Your task to perform on an android device: uninstall "Google Pay: Save, Pay, Manage" Image 0: 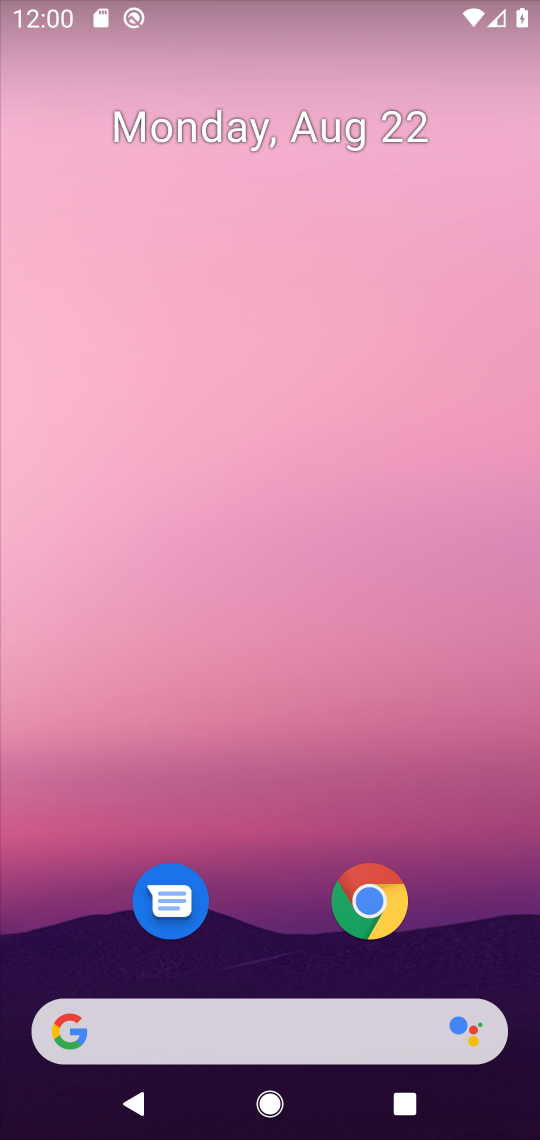
Step 0: drag from (308, 989) to (494, 211)
Your task to perform on an android device: uninstall "Google Pay: Save, Pay, Manage" Image 1: 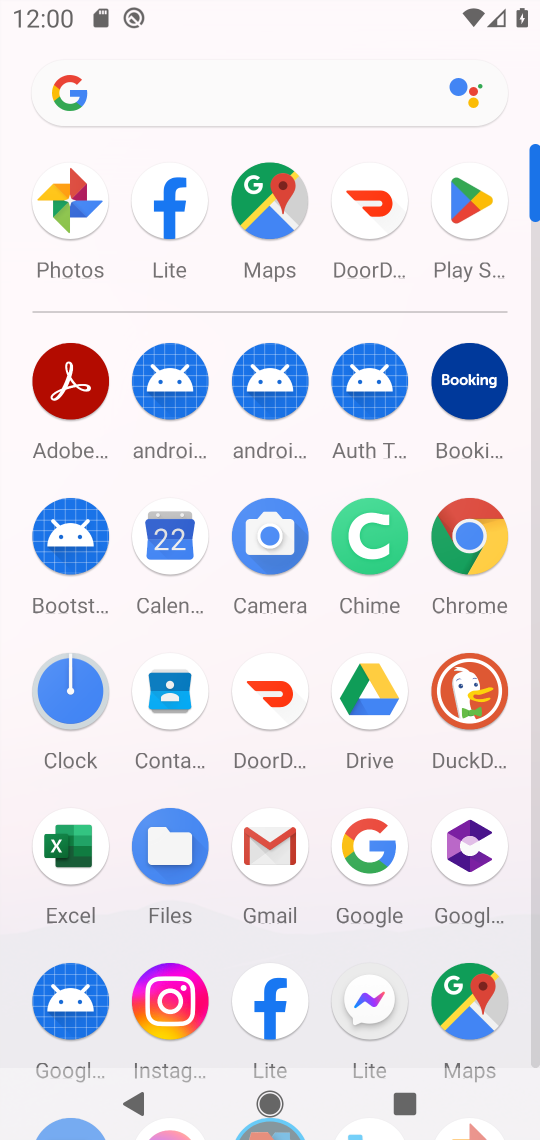
Step 1: click (438, 199)
Your task to perform on an android device: uninstall "Google Pay: Save, Pay, Manage" Image 2: 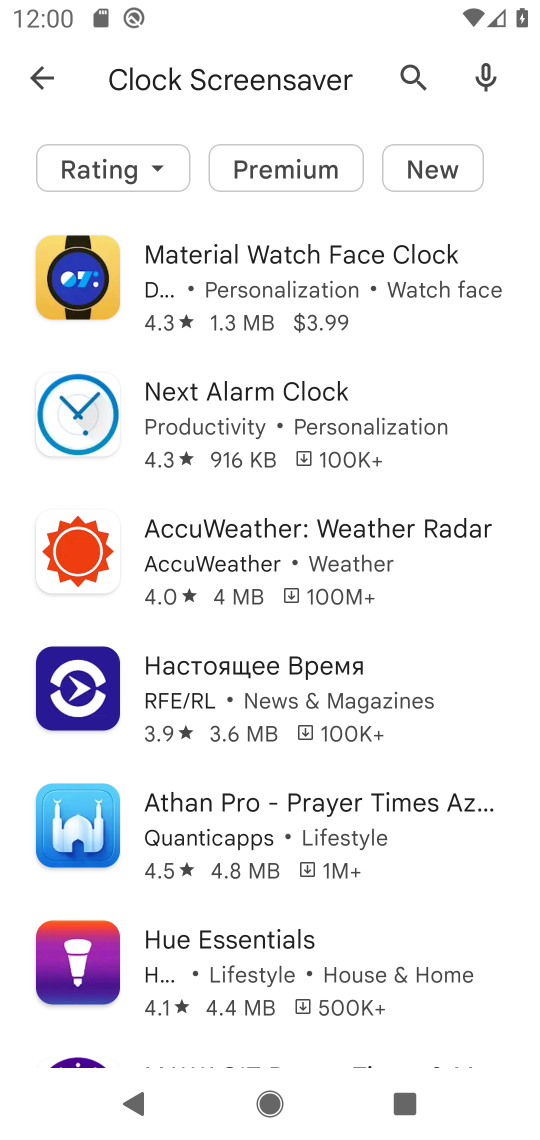
Step 2: click (374, 82)
Your task to perform on an android device: uninstall "Google Pay: Save, Pay, Manage" Image 3: 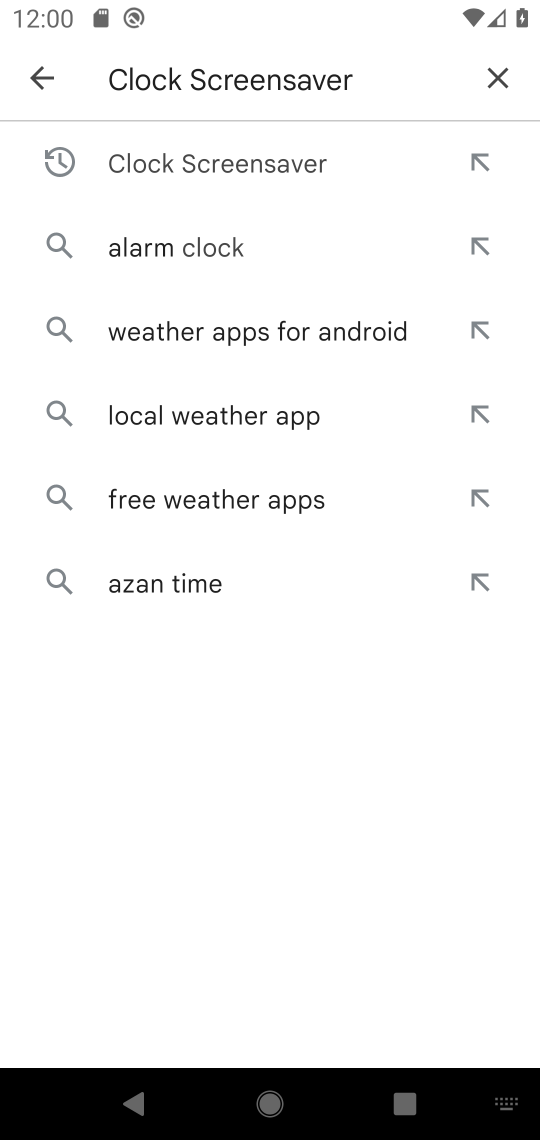
Step 3: click (508, 82)
Your task to perform on an android device: uninstall "Google Pay: Save, Pay, Manage" Image 4: 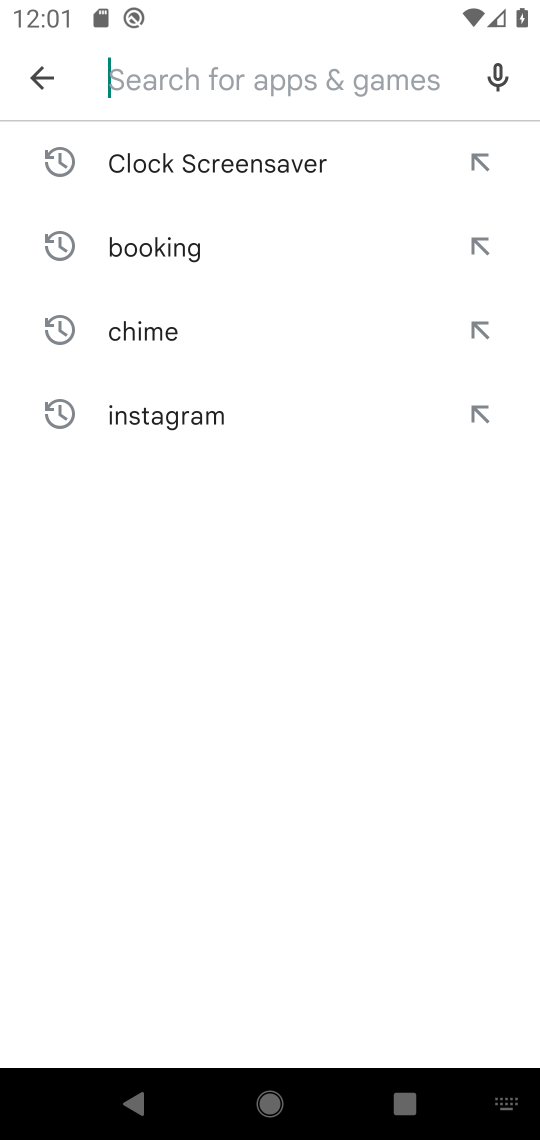
Step 4: type "google  pay"
Your task to perform on an android device: uninstall "Google Pay: Save, Pay, Manage" Image 5: 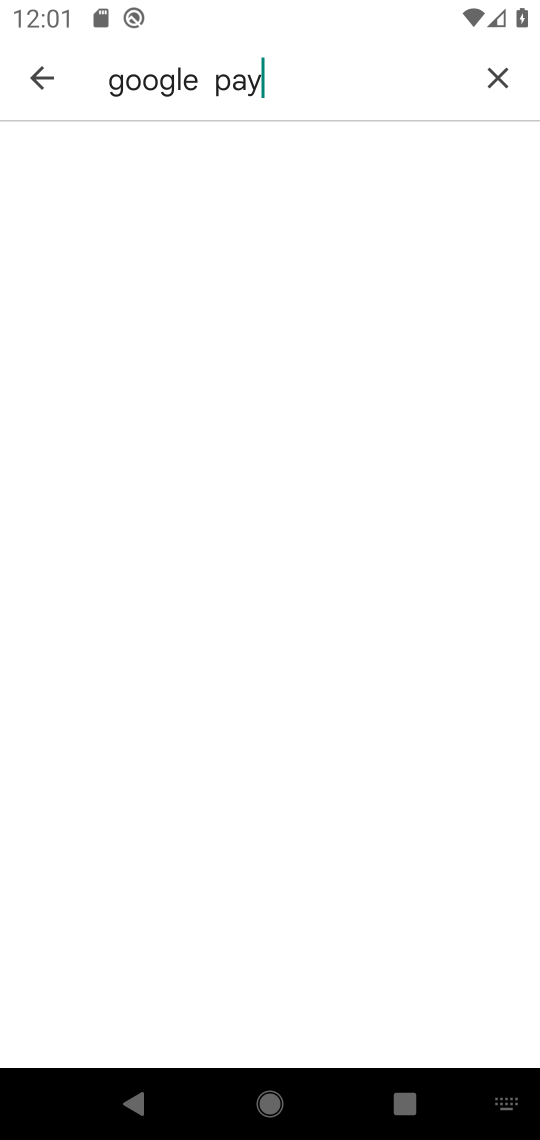
Step 5: task complete